Your task to perform on an android device: see creations saved in the google photos Image 0: 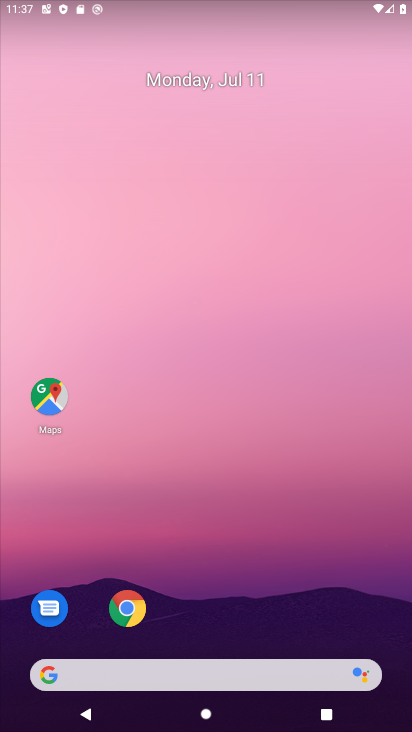
Step 0: drag from (264, 612) to (188, 65)
Your task to perform on an android device: see creations saved in the google photos Image 1: 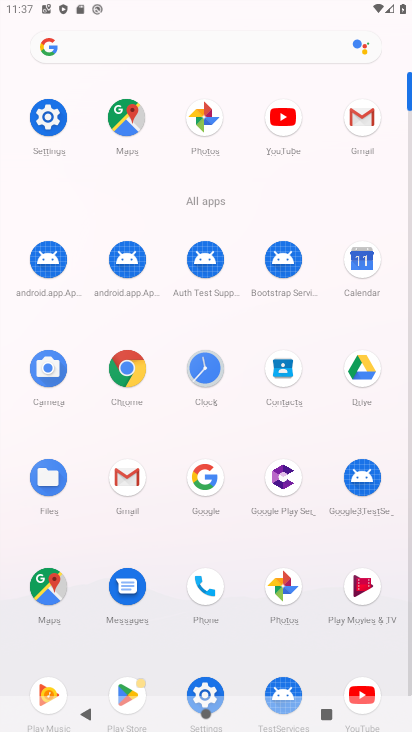
Step 1: click (209, 110)
Your task to perform on an android device: see creations saved in the google photos Image 2: 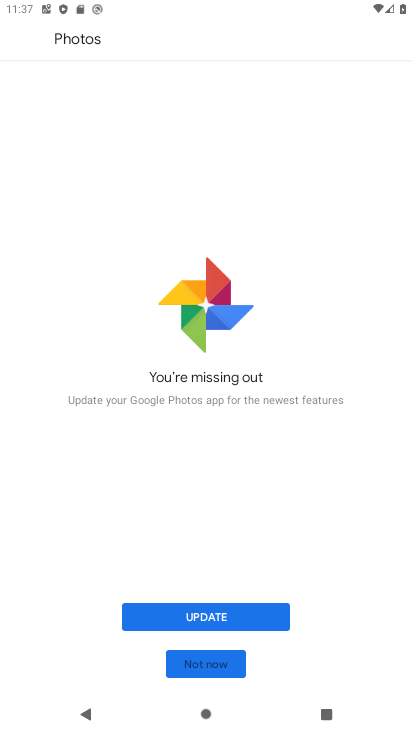
Step 2: click (231, 663)
Your task to perform on an android device: see creations saved in the google photos Image 3: 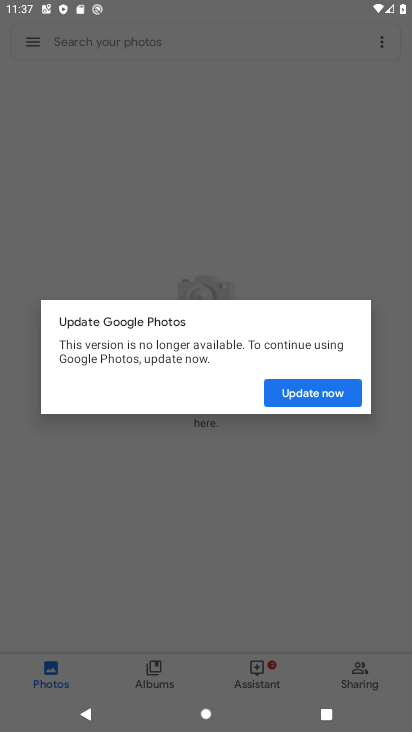
Step 3: click (345, 392)
Your task to perform on an android device: see creations saved in the google photos Image 4: 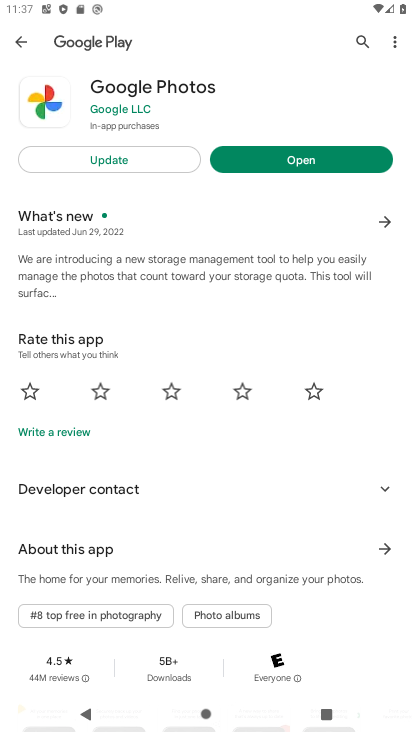
Step 4: click (265, 161)
Your task to perform on an android device: see creations saved in the google photos Image 5: 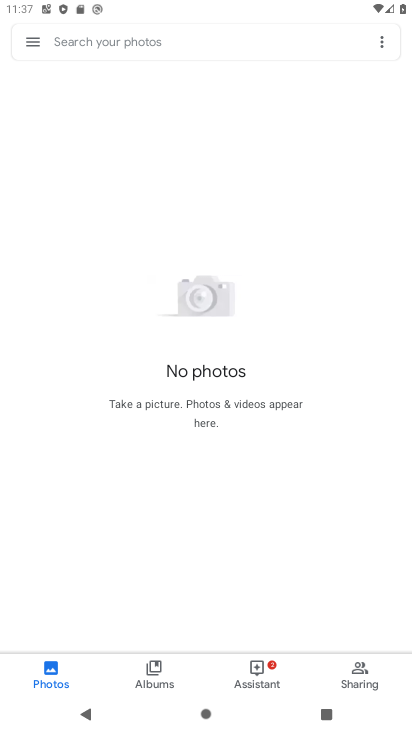
Step 5: click (268, 667)
Your task to perform on an android device: see creations saved in the google photos Image 6: 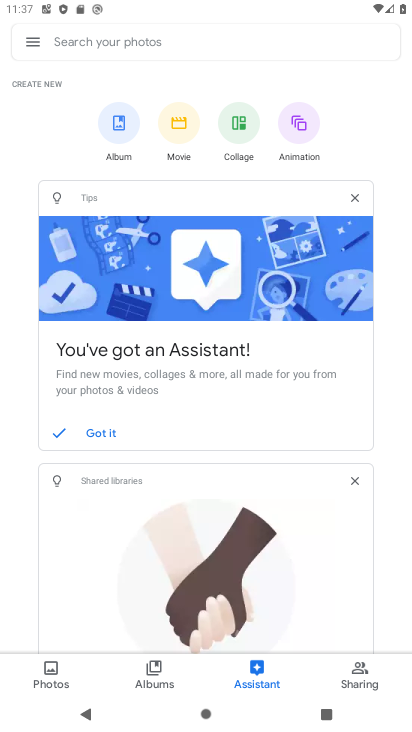
Step 6: task complete